Your task to perform on an android device: Show the shopping cart on target.com. Search for razer kraken on target.com, select the first entry, add it to the cart, then select checkout. Image 0: 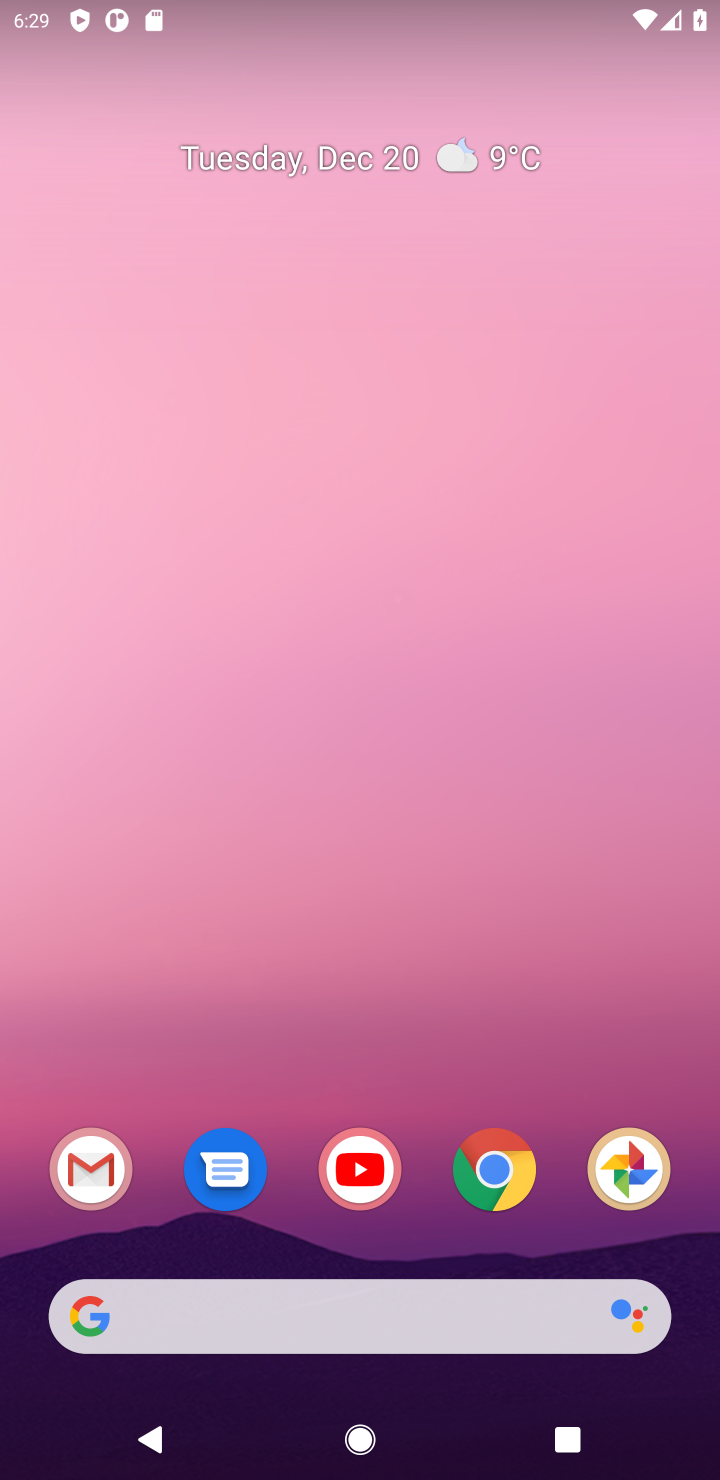
Step 0: click (484, 1195)
Your task to perform on an android device: Show the shopping cart on target.com. Search for razer kraken on target.com, select the first entry, add it to the cart, then select checkout. Image 1: 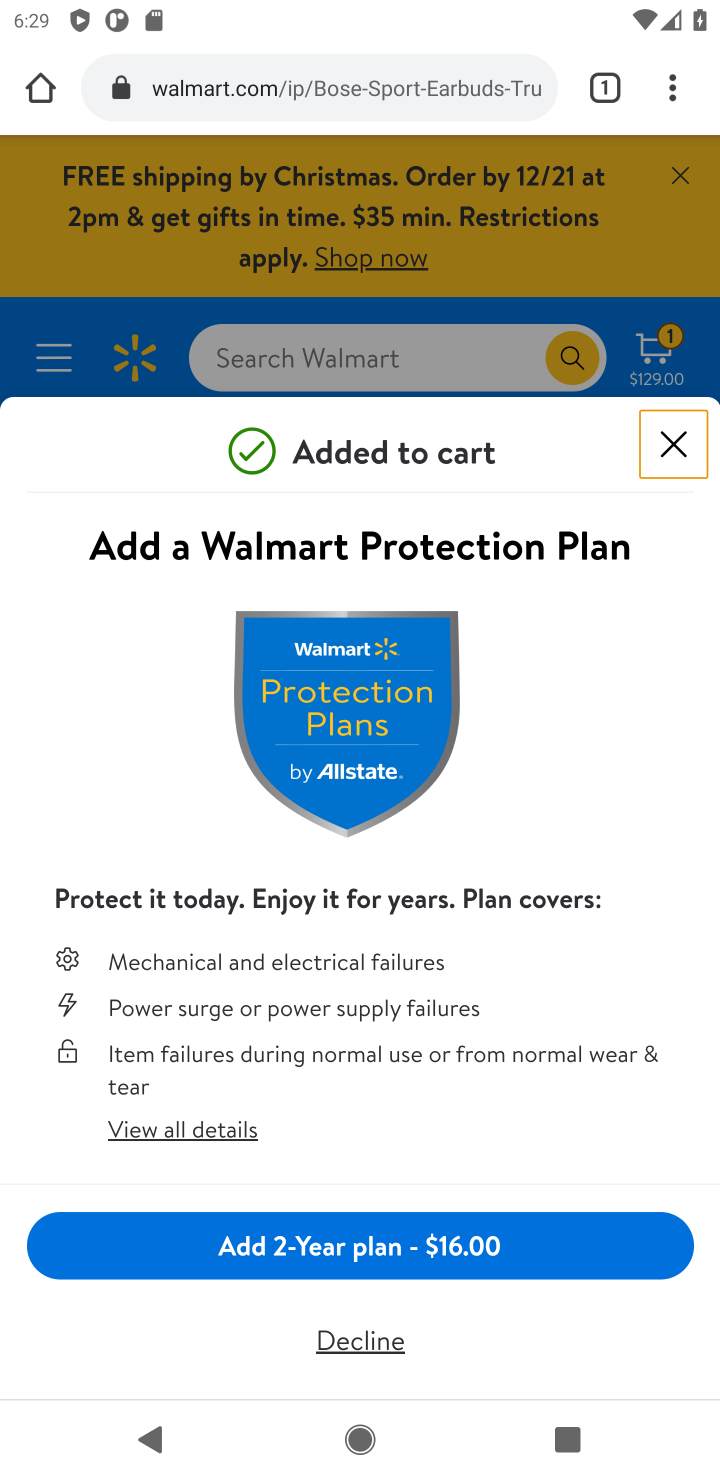
Step 1: click (365, 1340)
Your task to perform on an android device: Show the shopping cart on target.com. Search for razer kraken on target.com, select the first entry, add it to the cart, then select checkout. Image 2: 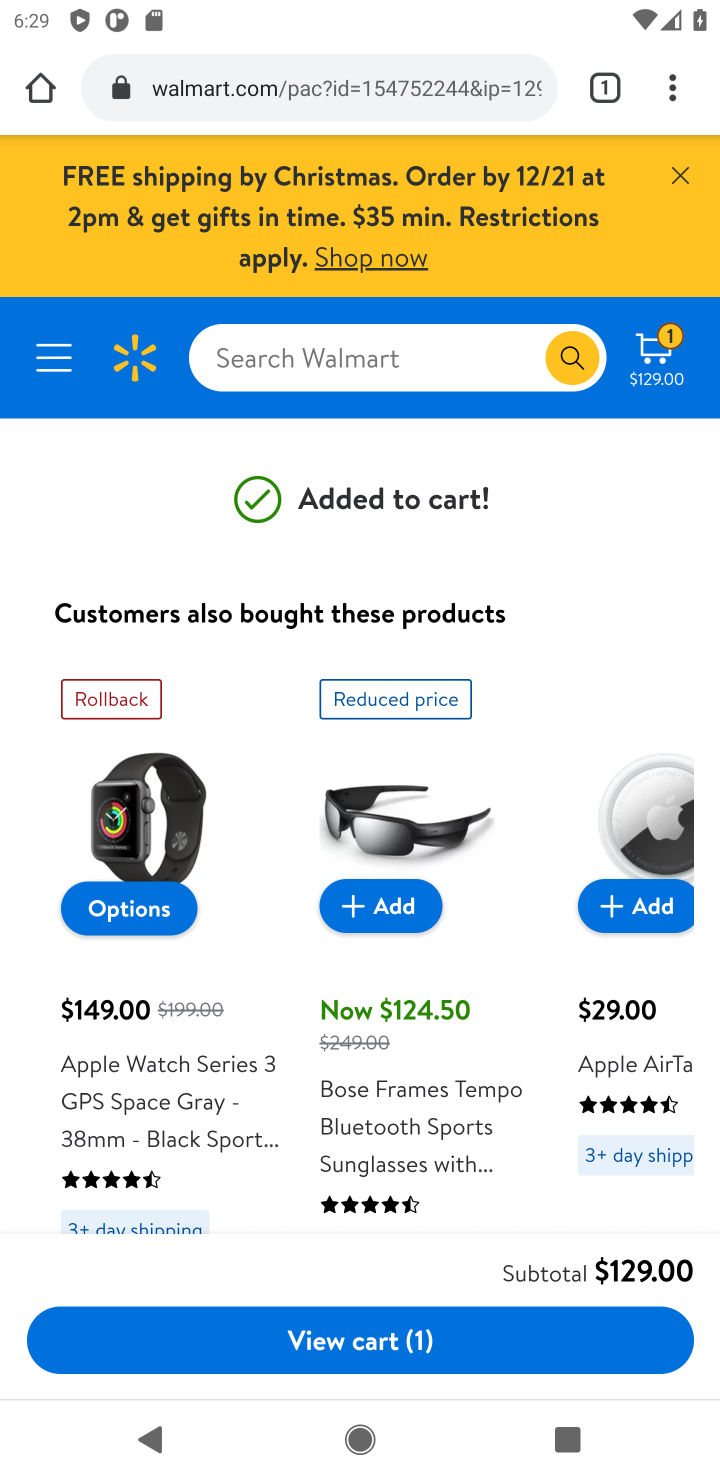
Step 2: click (323, 81)
Your task to perform on an android device: Show the shopping cart on target.com. Search for razer kraken on target.com, select the first entry, add it to the cart, then select checkout. Image 3: 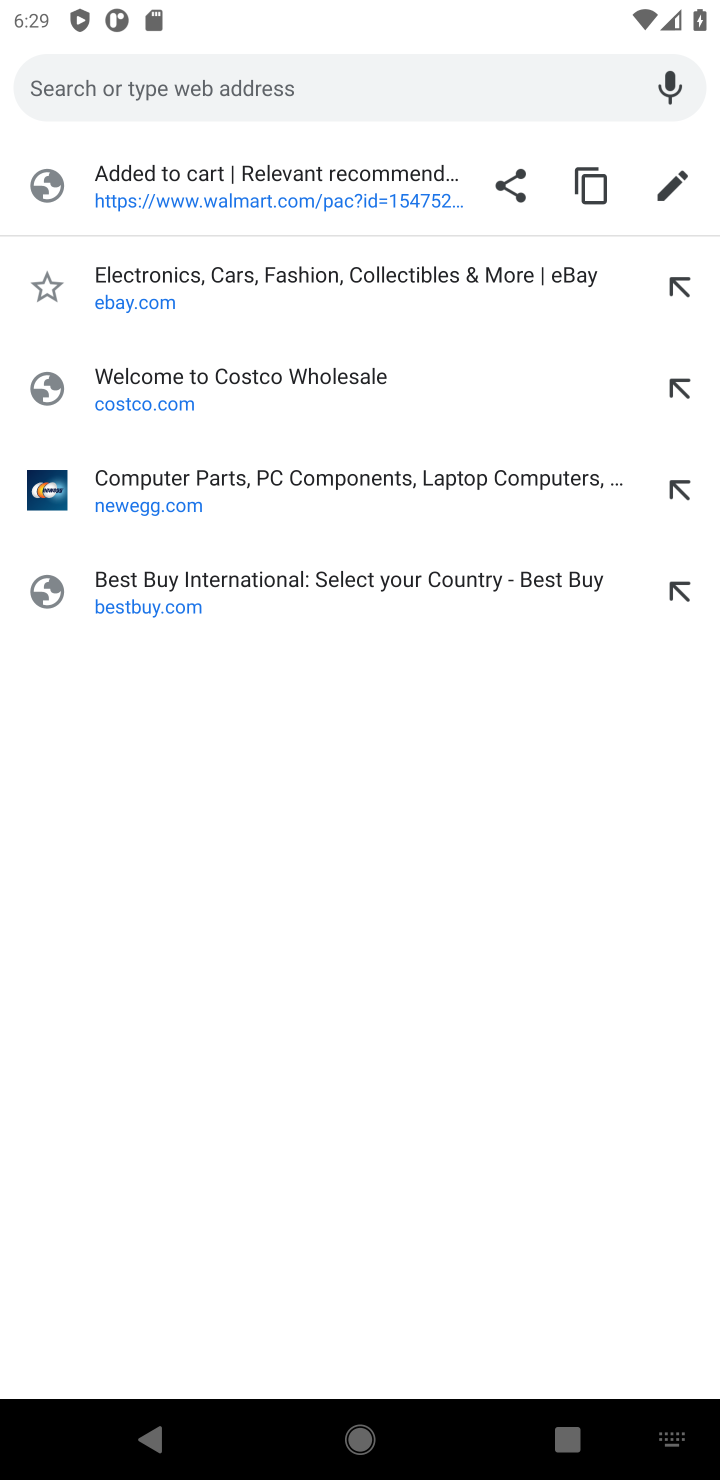
Step 3: type "target"
Your task to perform on an android device: Show the shopping cart on target.com. Search for razer kraken on target.com, select the first entry, add it to the cart, then select checkout. Image 4: 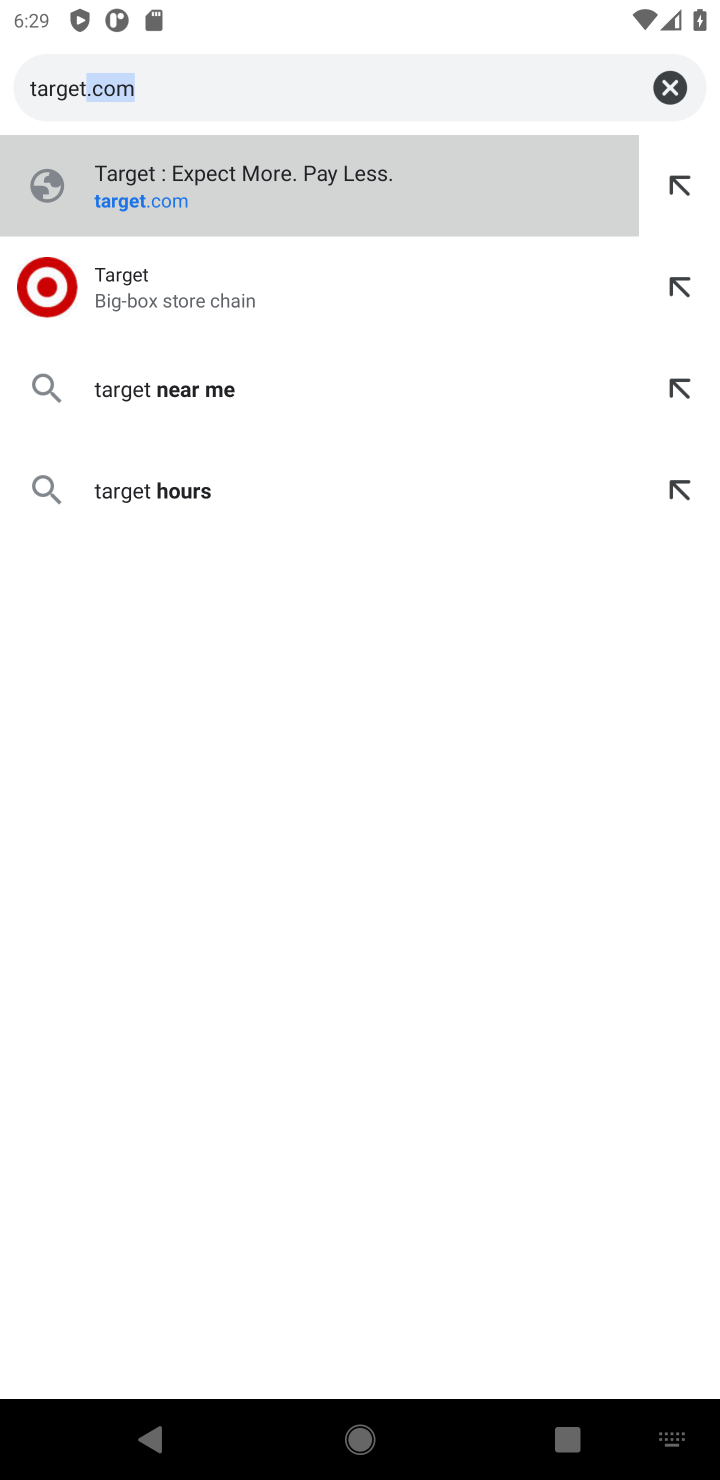
Step 4: click (107, 262)
Your task to perform on an android device: Show the shopping cart on target.com. Search for razer kraken on target.com, select the first entry, add it to the cart, then select checkout. Image 5: 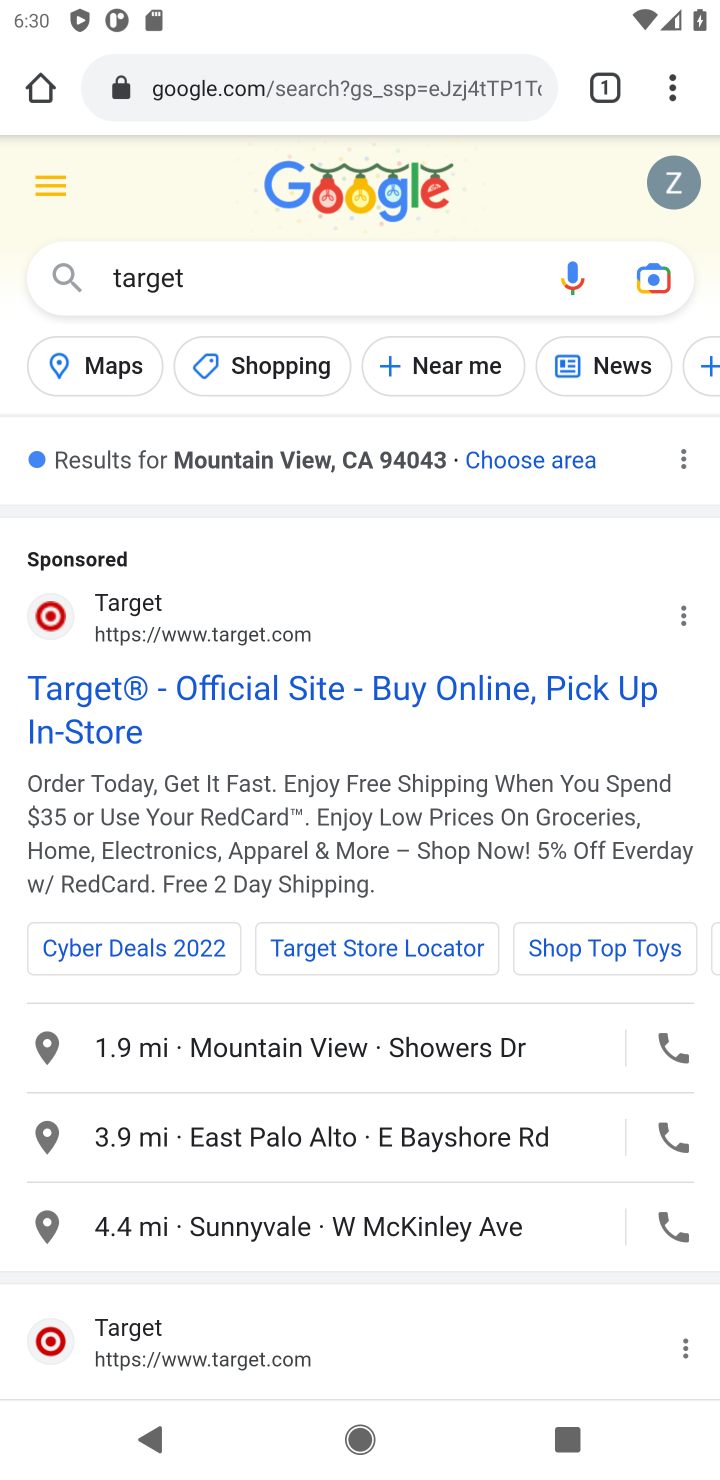
Step 5: click (166, 674)
Your task to perform on an android device: Show the shopping cart on target.com. Search for razer kraken on target.com, select the first entry, add it to the cart, then select checkout. Image 6: 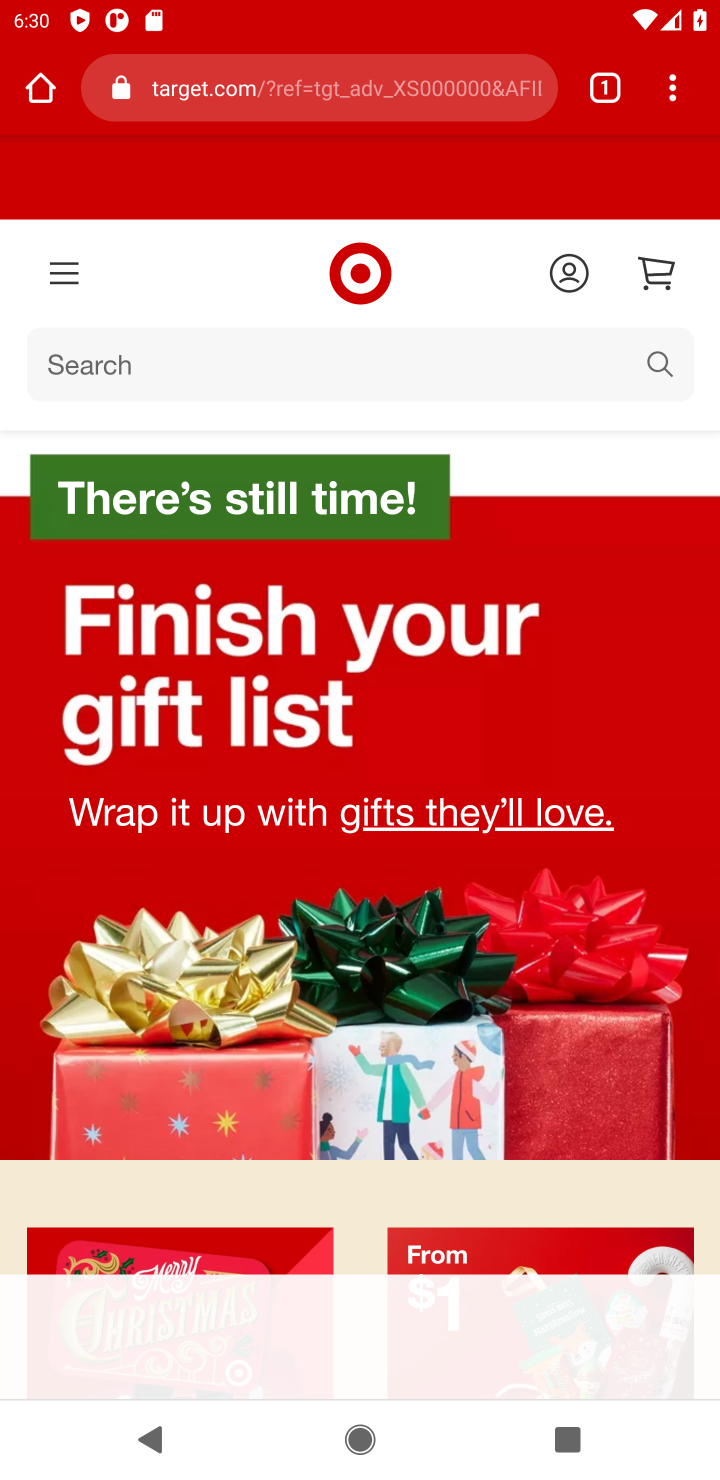
Step 6: click (140, 372)
Your task to perform on an android device: Show the shopping cart on target.com. Search for razer kraken on target.com, select the first entry, add it to the cart, then select checkout. Image 7: 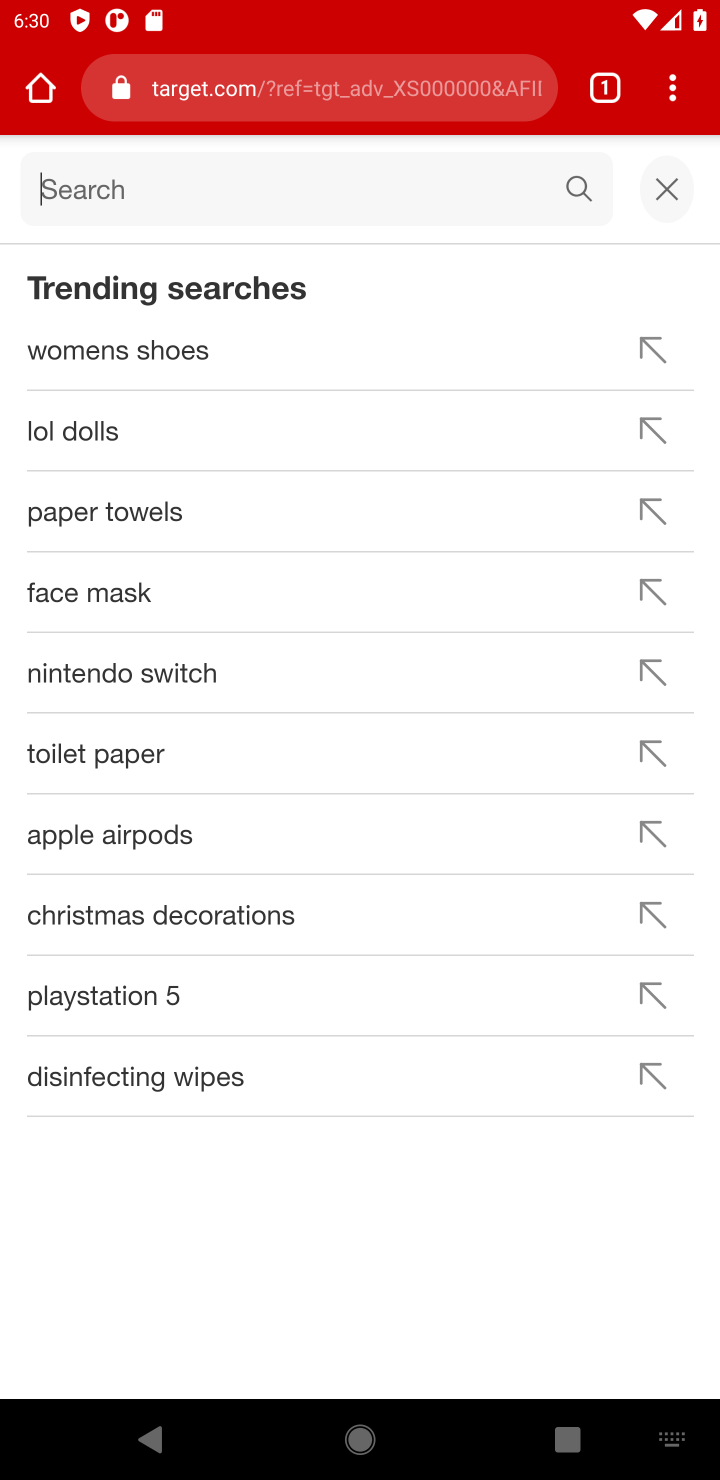
Step 7: type "razer karken"
Your task to perform on an android device: Show the shopping cart on target.com. Search for razer kraken on target.com, select the first entry, add it to the cart, then select checkout. Image 8: 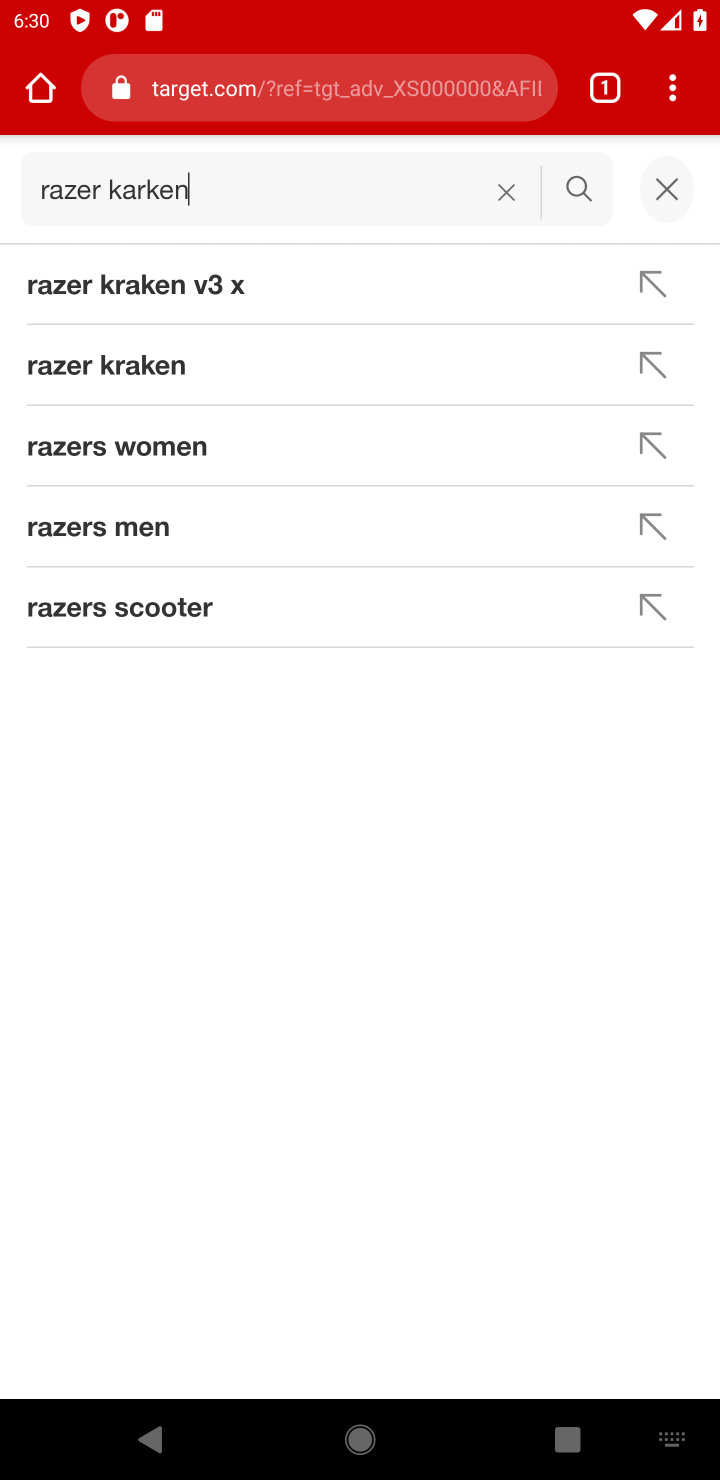
Step 8: click (235, 363)
Your task to perform on an android device: Show the shopping cart on target.com. Search for razer kraken on target.com, select the first entry, add it to the cart, then select checkout. Image 9: 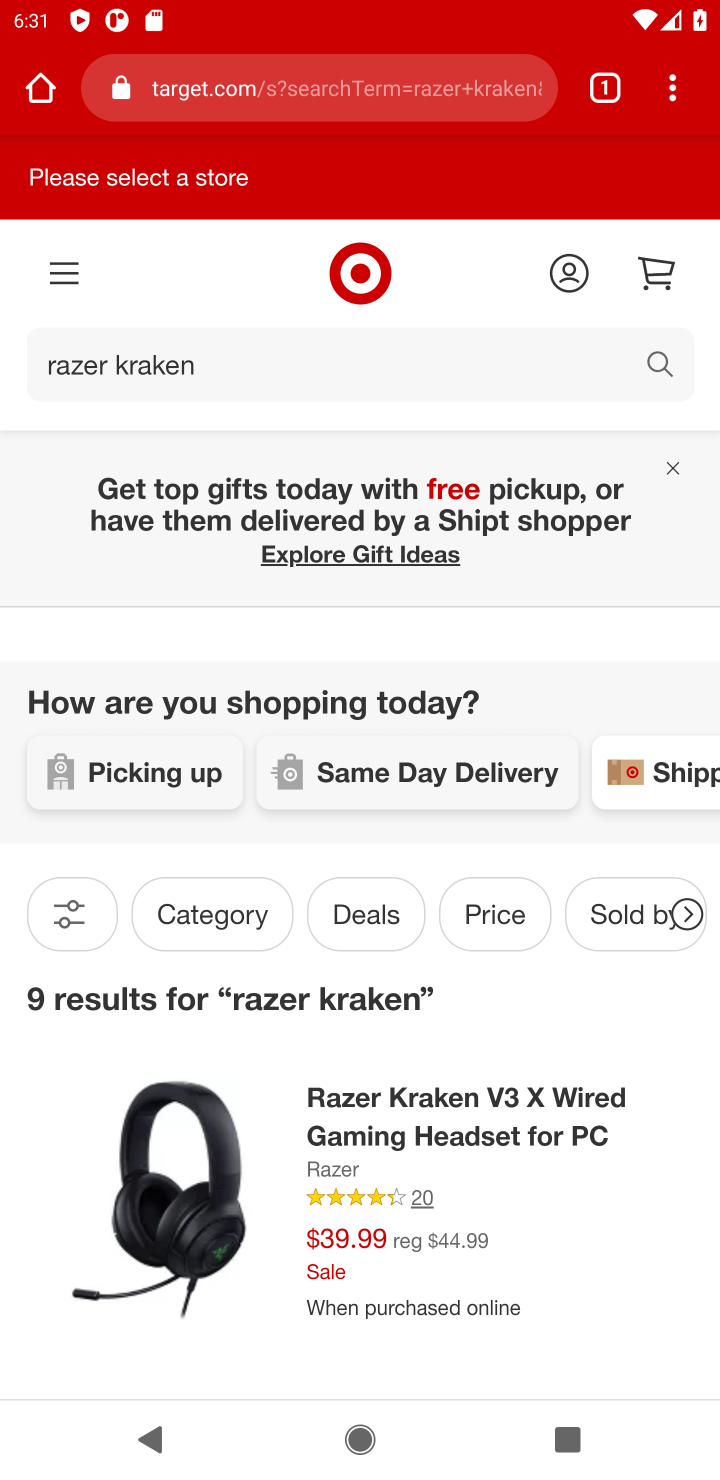
Step 9: click (370, 1119)
Your task to perform on an android device: Show the shopping cart on target.com. Search for razer kraken on target.com, select the first entry, add it to the cart, then select checkout. Image 10: 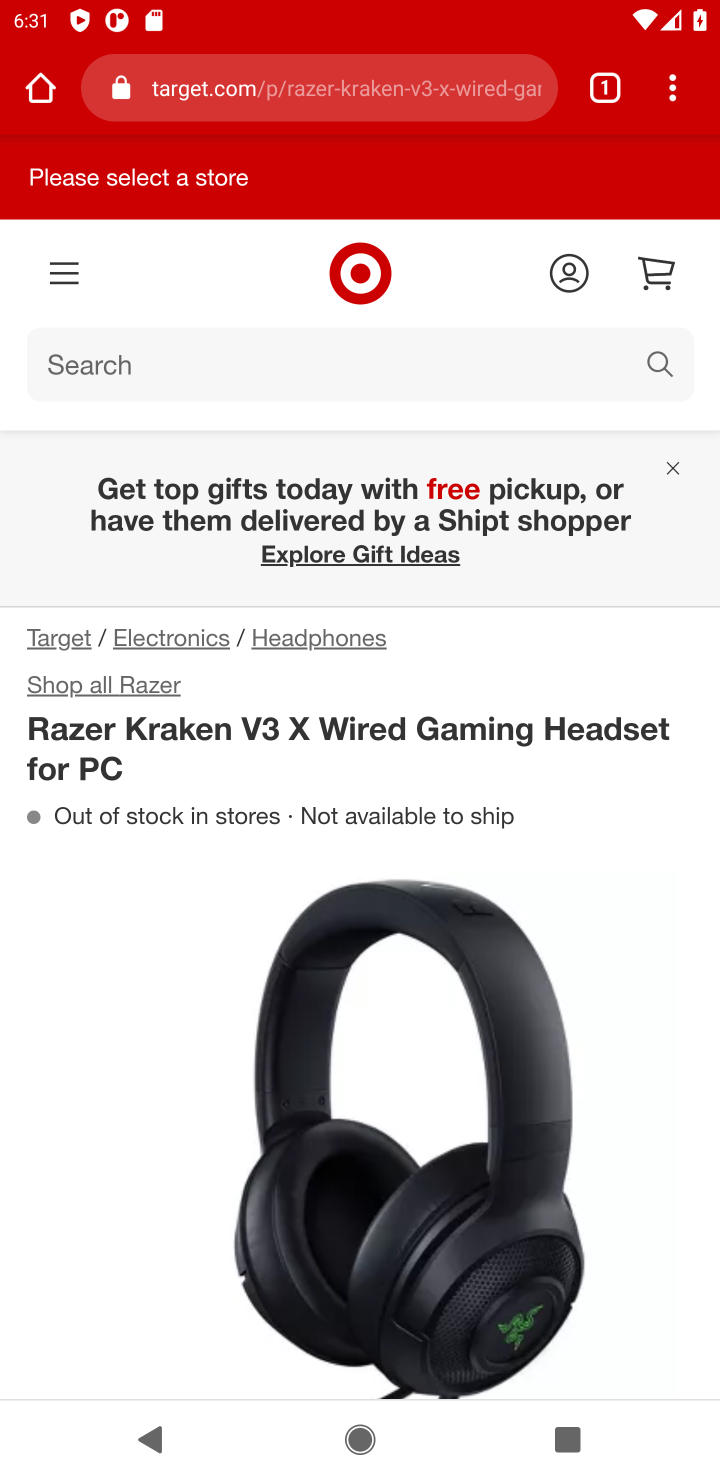
Step 10: task complete